Your task to perform on an android device: delete a single message in the gmail app Image 0: 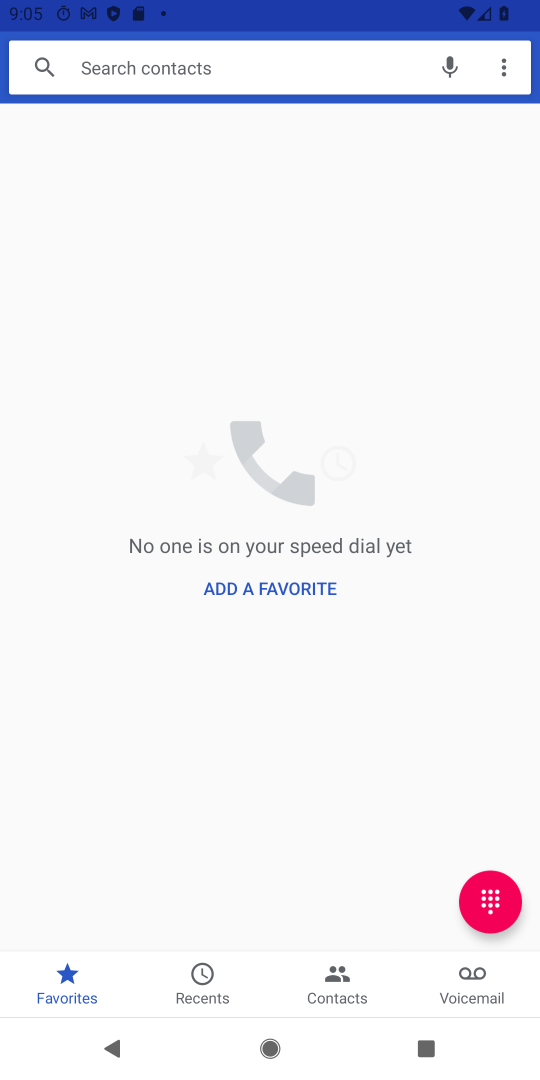
Step 0: drag from (508, 890) to (372, 92)
Your task to perform on an android device: delete a single message in the gmail app Image 1: 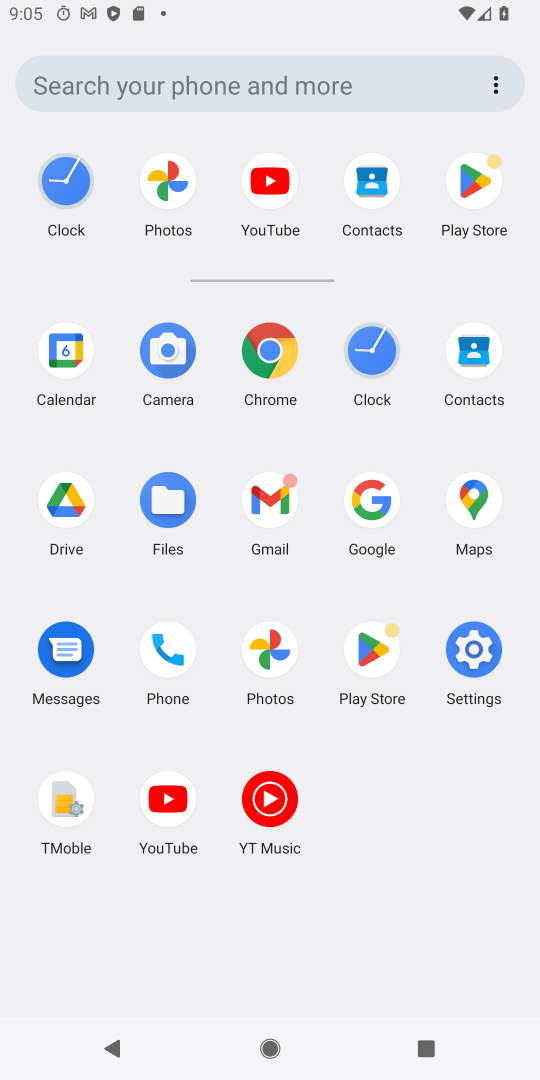
Step 1: press home button
Your task to perform on an android device: delete a single message in the gmail app Image 2: 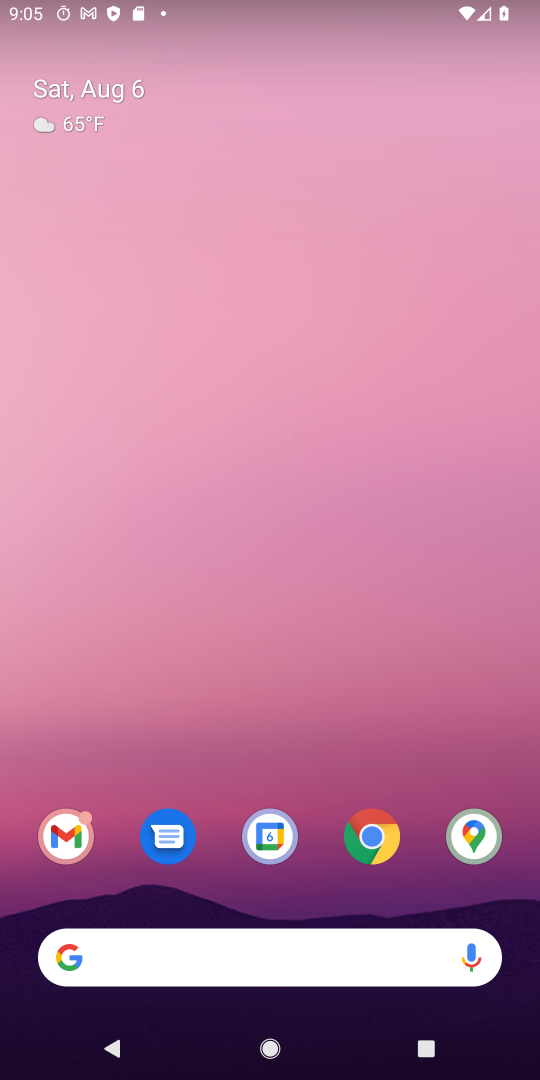
Step 2: drag from (511, 1000) to (324, 45)
Your task to perform on an android device: delete a single message in the gmail app Image 3: 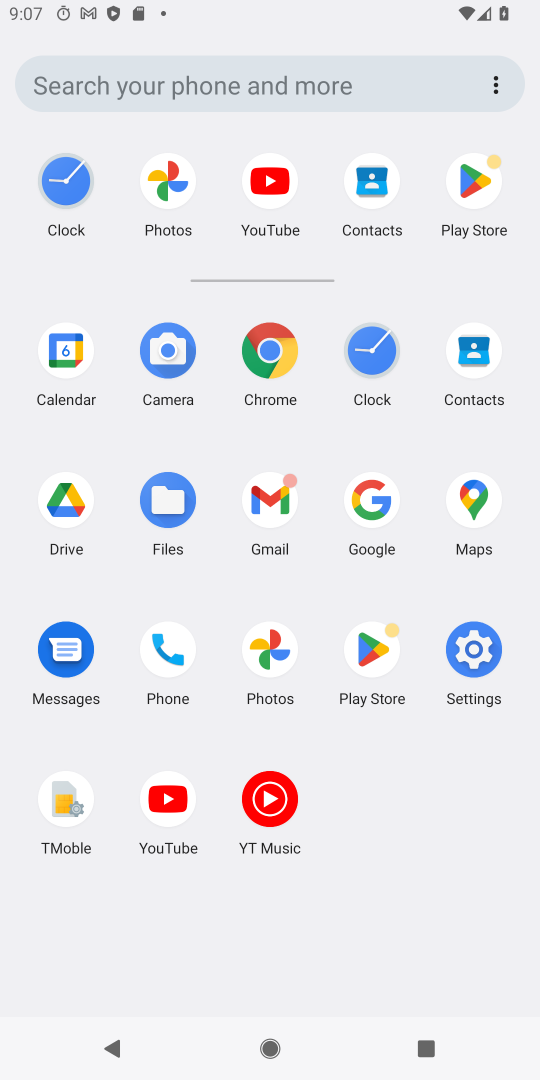
Step 3: click (262, 482)
Your task to perform on an android device: delete a single message in the gmail app Image 4: 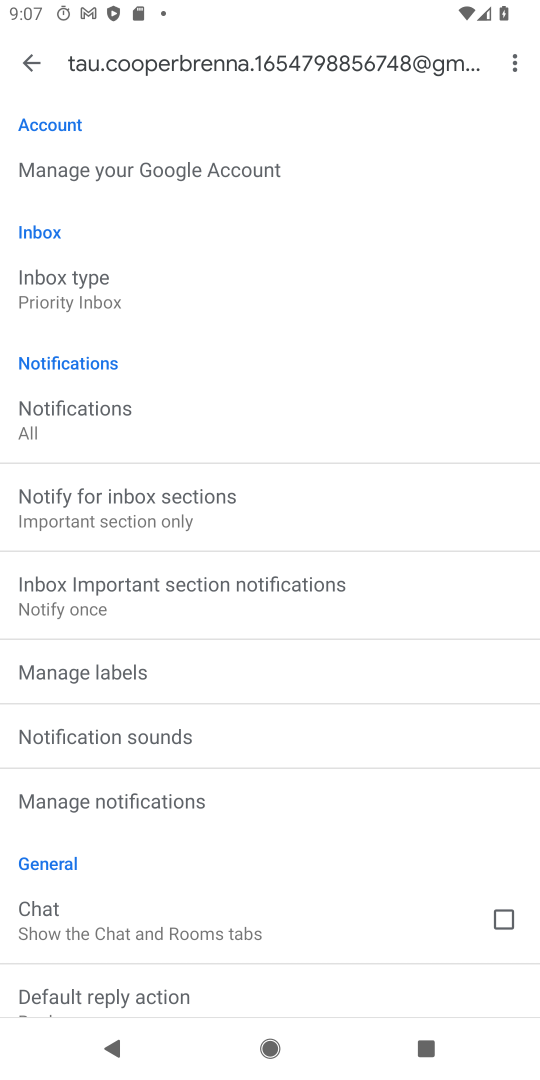
Step 4: press back button
Your task to perform on an android device: delete a single message in the gmail app Image 5: 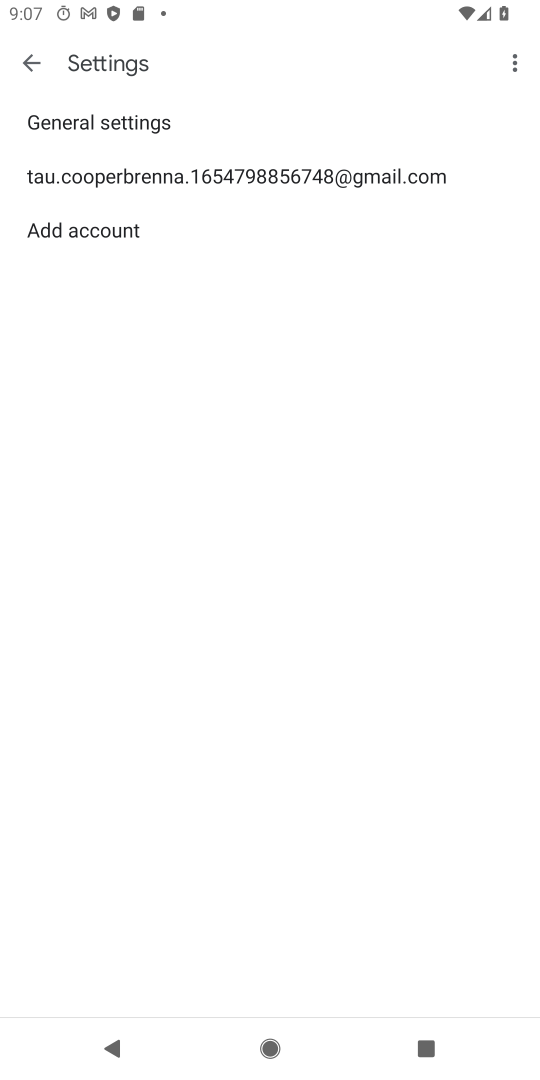
Step 5: press back button
Your task to perform on an android device: delete a single message in the gmail app Image 6: 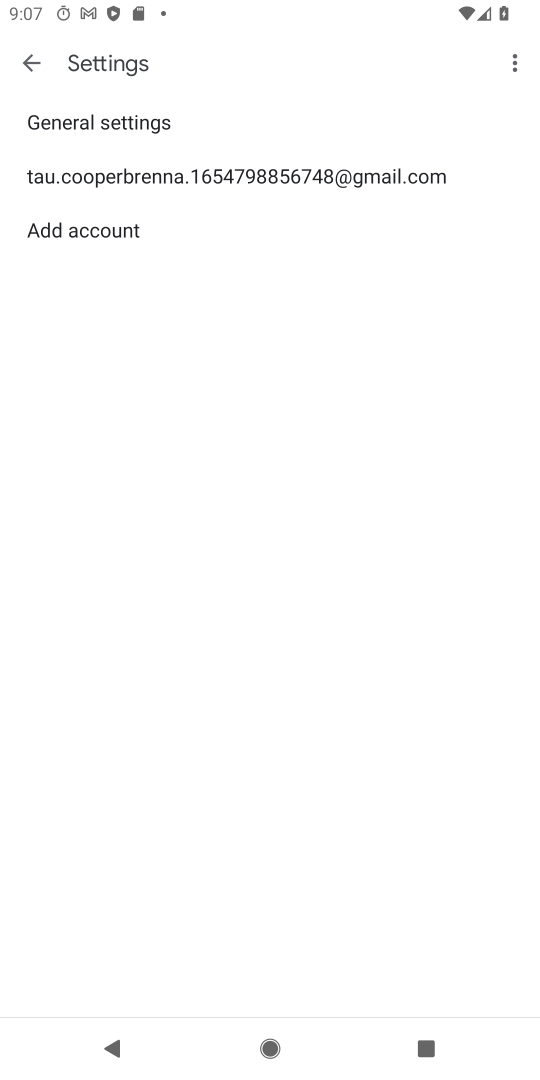
Step 6: press back button
Your task to perform on an android device: delete a single message in the gmail app Image 7: 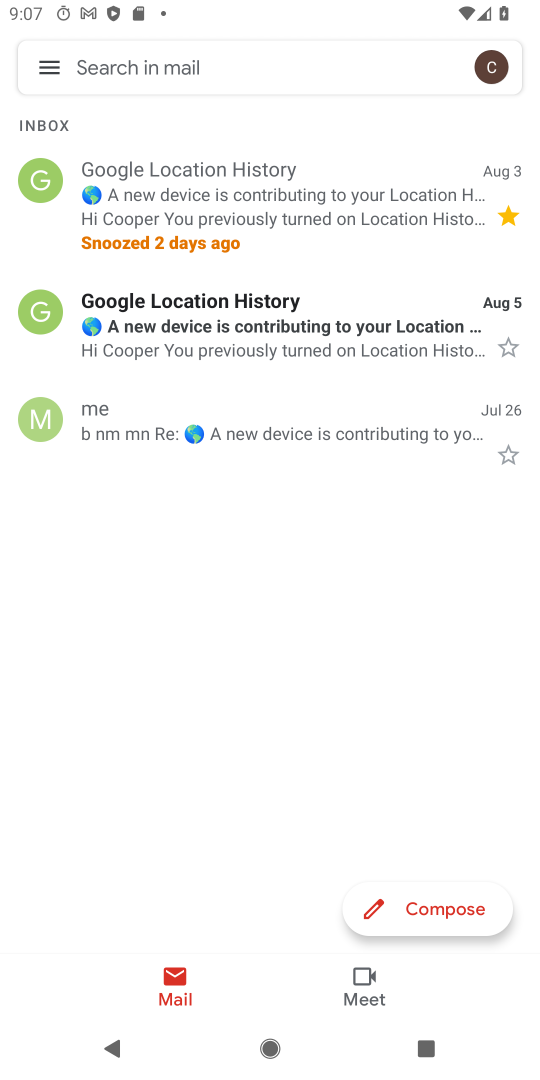
Step 7: click (234, 232)
Your task to perform on an android device: delete a single message in the gmail app Image 8: 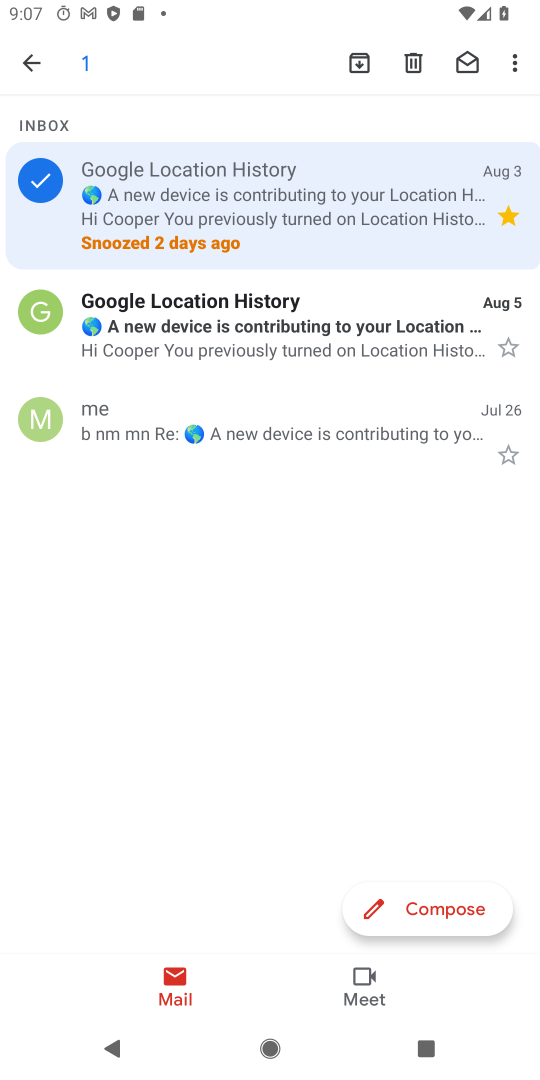
Step 8: click (414, 55)
Your task to perform on an android device: delete a single message in the gmail app Image 9: 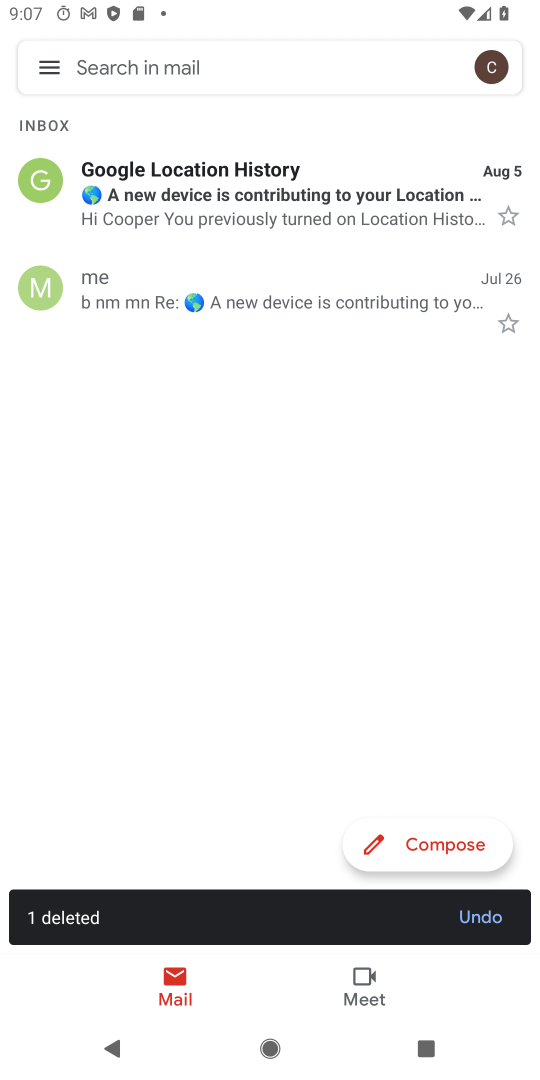
Step 9: task complete